Your task to perform on an android device: open chrome and create a bookmark for the current page Image 0: 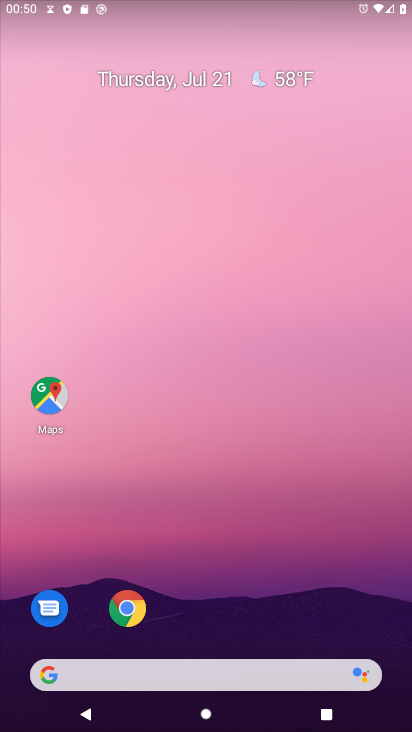
Step 0: click (125, 601)
Your task to perform on an android device: open chrome and create a bookmark for the current page Image 1: 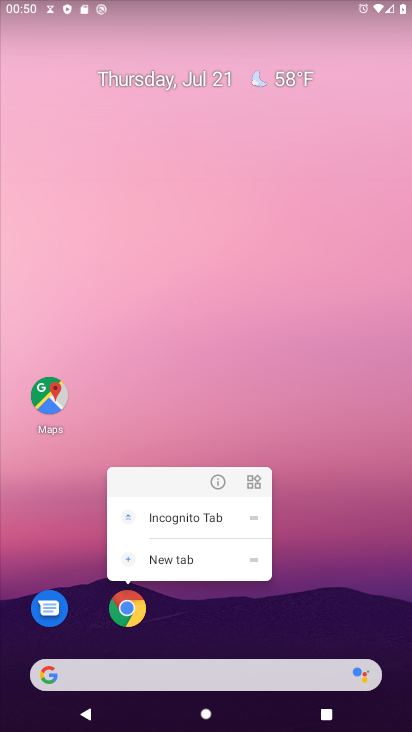
Step 1: click (126, 607)
Your task to perform on an android device: open chrome and create a bookmark for the current page Image 2: 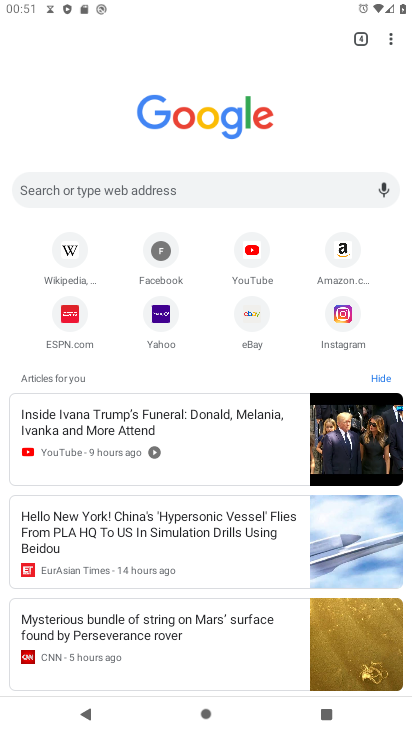
Step 2: click (393, 31)
Your task to perform on an android device: open chrome and create a bookmark for the current page Image 3: 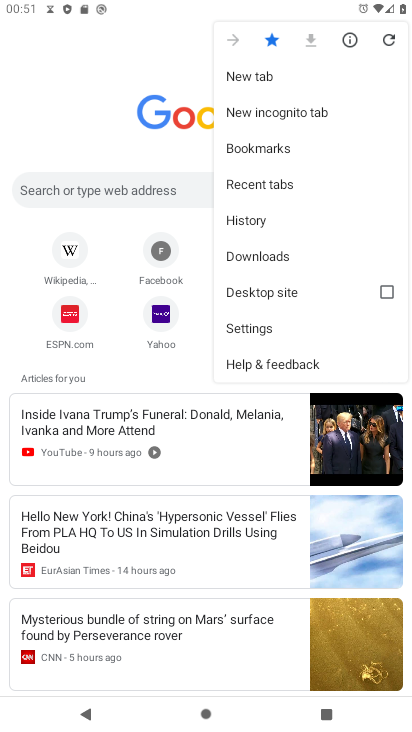
Step 3: task complete